Your task to perform on an android device: change timer sound Image 0: 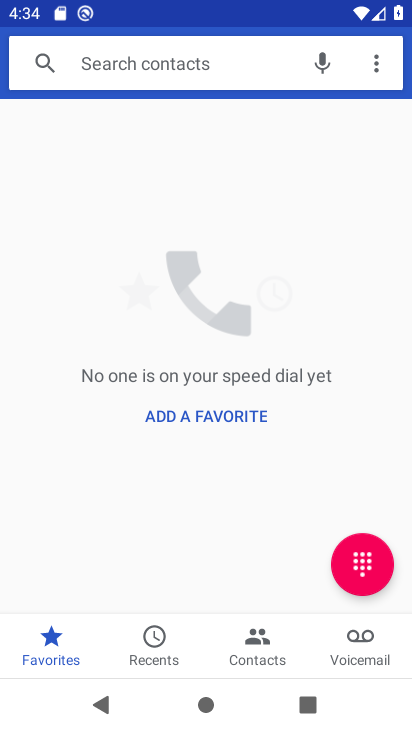
Step 0: press back button
Your task to perform on an android device: change timer sound Image 1: 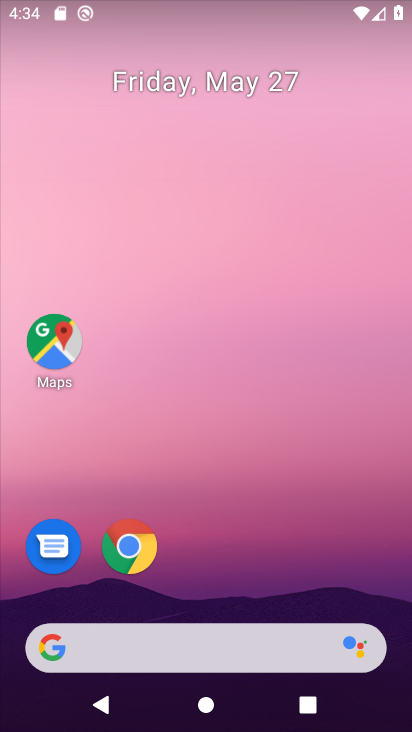
Step 1: drag from (280, 535) to (237, 14)
Your task to perform on an android device: change timer sound Image 2: 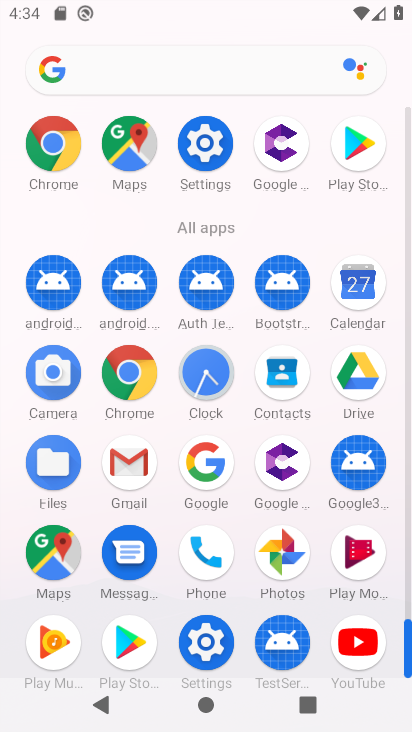
Step 2: drag from (6, 513) to (8, 284)
Your task to perform on an android device: change timer sound Image 3: 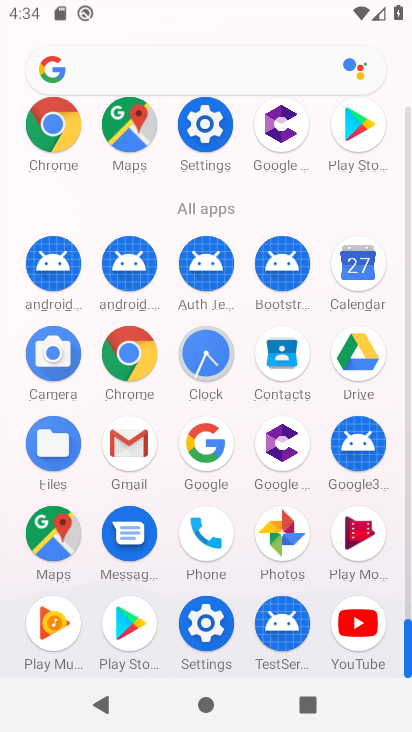
Step 3: click (205, 350)
Your task to perform on an android device: change timer sound Image 4: 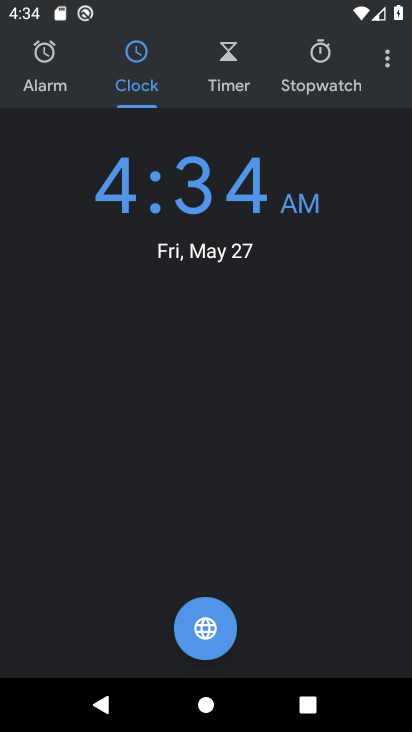
Step 4: drag from (388, 60) to (309, 112)
Your task to perform on an android device: change timer sound Image 5: 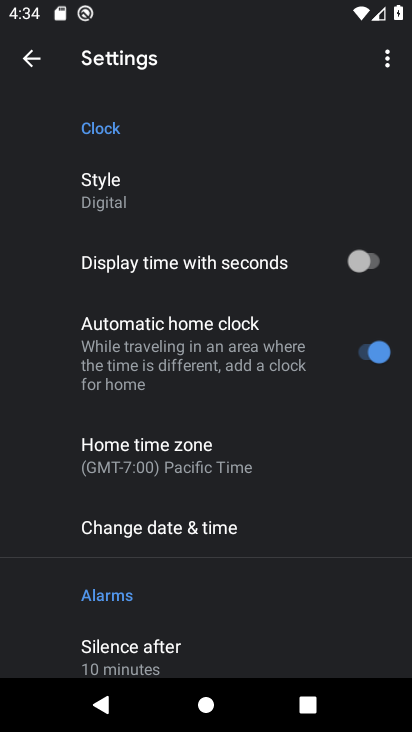
Step 5: drag from (258, 448) to (245, 210)
Your task to perform on an android device: change timer sound Image 6: 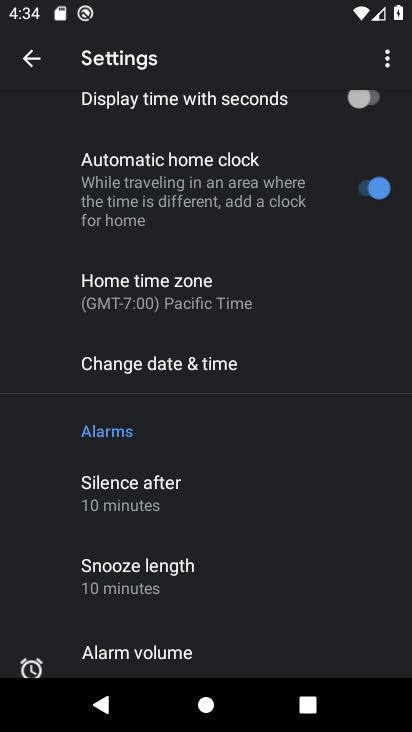
Step 6: drag from (195, 560) to (214, 240)
Your task to perform on an android device: change timer sound Image 7: 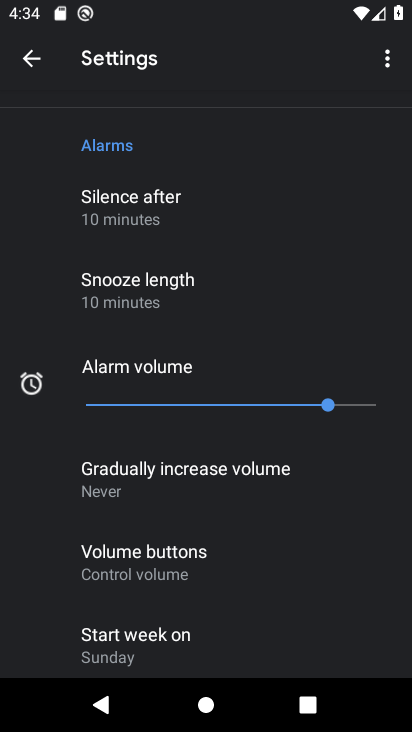
Step 7: drag from (214, 555) to (258, 194)
Your task to perform on an android device: change timer sound Image 8: 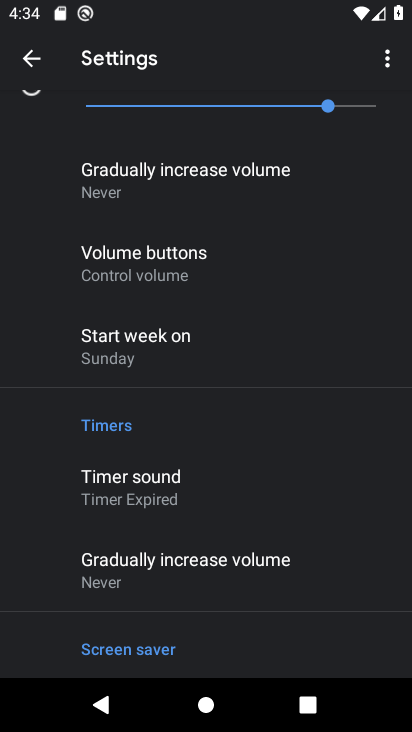
Step 8: click (200, 473)
Your task to perform on an android device: change timer sound Image 9: 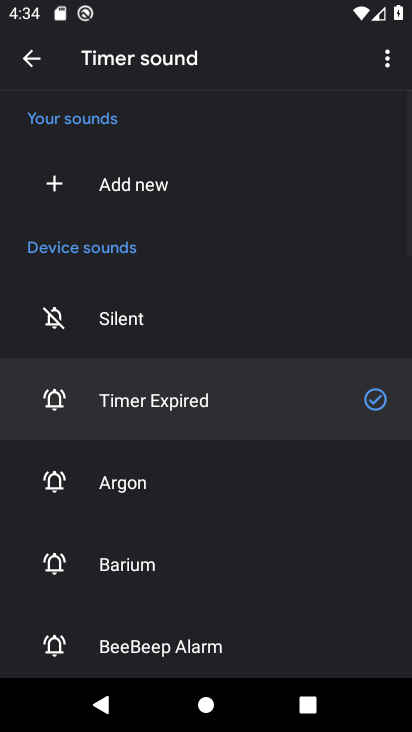
Step 9: click (152, 481)
Your task to perform on an android device: change timer sound Image 10: 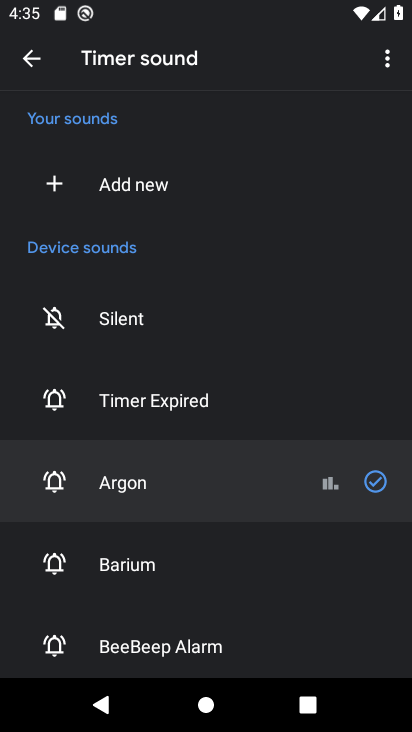
Step 10: task complete